Your task to perform on an android device: turn on priority inbox in the gmail app Image 0: 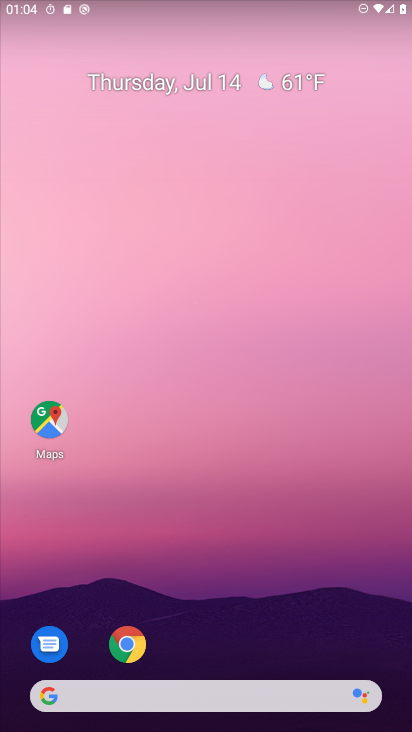
Step 0: drag from (279, 651) to (289, 99)
Your task to perform on an android device: turn on priority inbox in the gmail app Image 1: 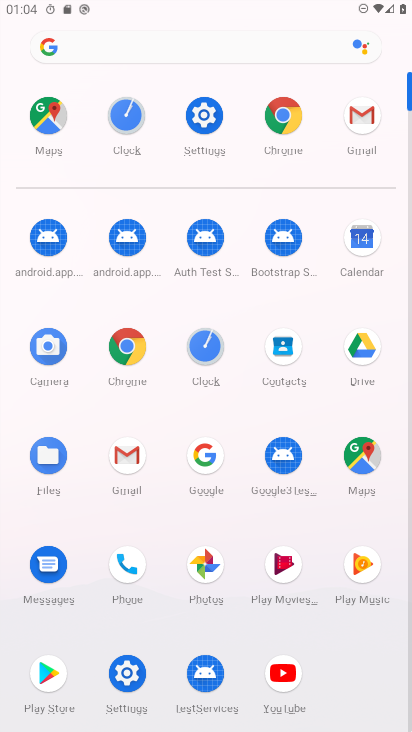
Step 1: click (359, 115)
Your task to perform on an android device: turn on priority inbox in the gmail app Image 2: 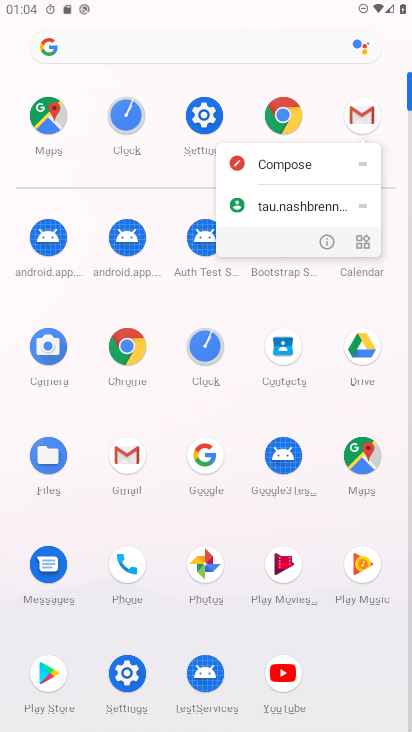
Step 2: click (137, 452)
Your task to perform on an android device: turn on priority inbox in the gmail app Image 3: 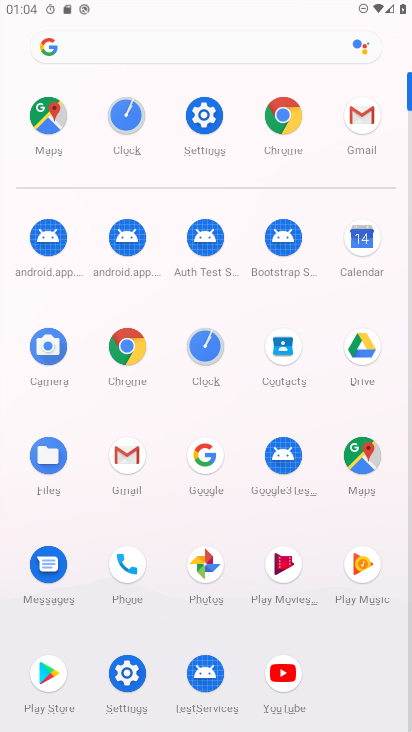
Step 3: click (137, 451)
Your task to perform on an android device: turn on priority inbox in the gmail app Image 4: 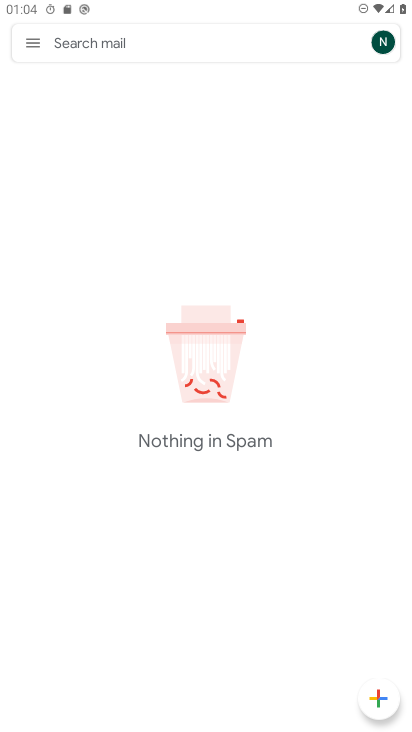
Step 4: click (37, 35)
Your task to perform on an android device: turn on priority inbox in the gmail app Image 5: 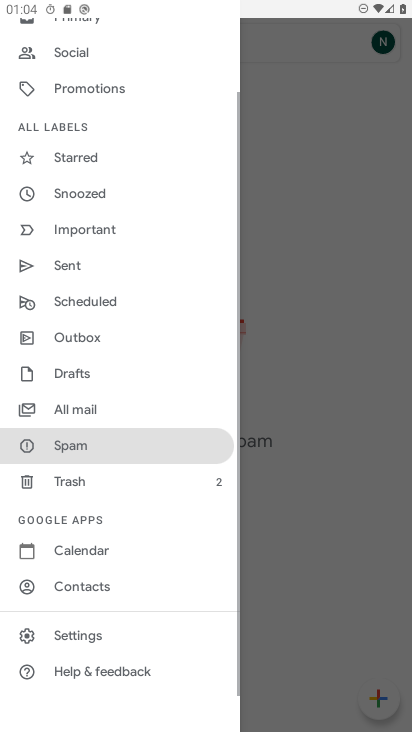
Step 5: click (92, 639)
Your task to perform on an android device: turn on priority inbox in the gmail app Image 6: 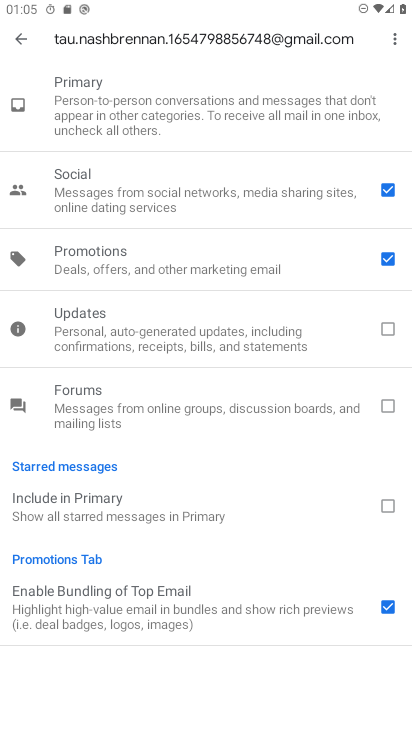
Step 6: click (23, 30)
Your task to perform on an android device: turn on priority inbox in the gmail app Image 7: 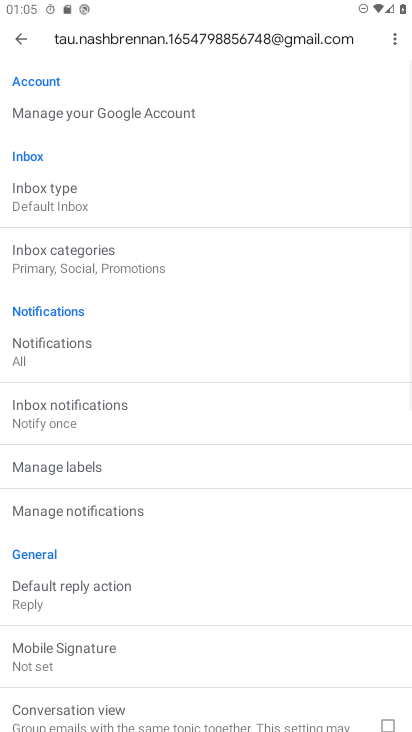
Step 7: click (60, 197)
Your task to perform on an android device: turn on priority inbox in the gmail app Image 8: 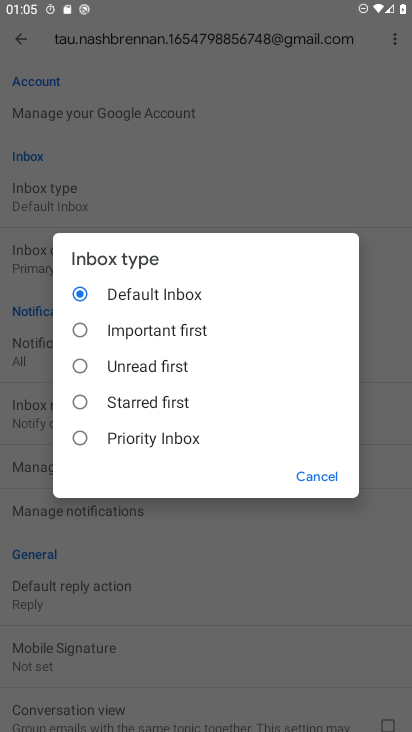
Step 8: task complete